Your task to perform on an android device: Show me recent news Image 0: 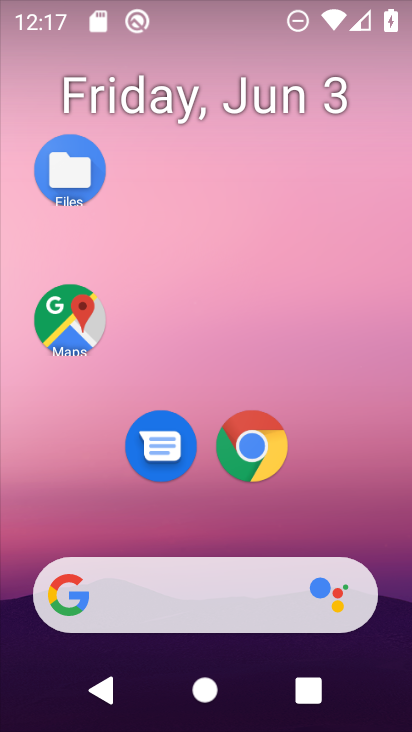
Step 0: drag from (232, 671) to (204, 207)
Your task to perform on an android device: Show me recent news Image 1: 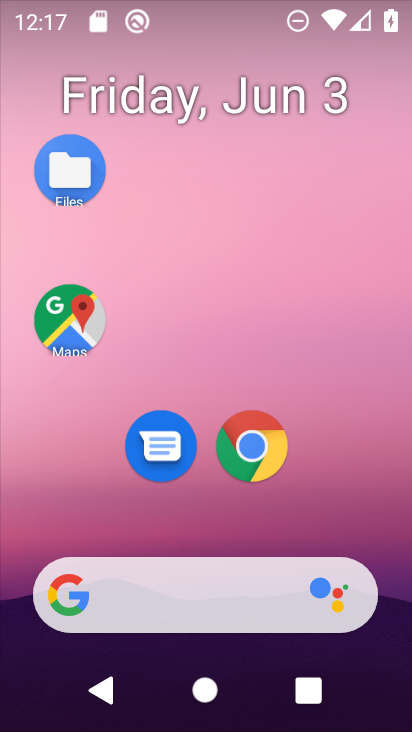
Step 1: drag from (177, 510) to (82, 134)
Your task to perform on an android device: Show me recent news Image 2: 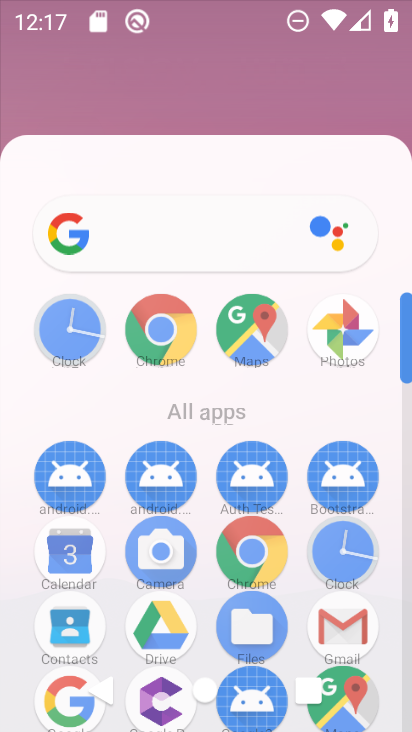
Step 2: drag from (194, 522) to (171, 229)
Your task to perform on an android device: Show me recent news Image 3: 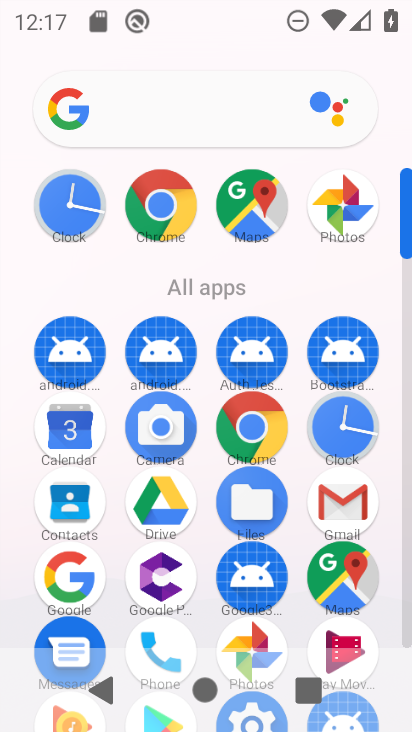
Step 3: drag from (277, 471) to (193, 219)
Your task to perform on an android device: Show me recent news Image 4: 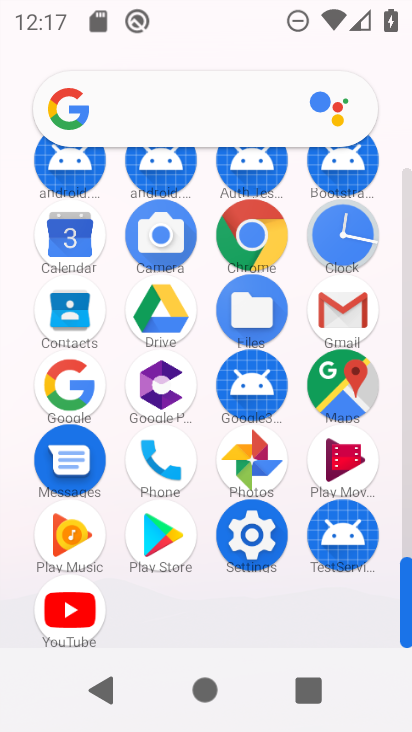
Step 4: click (254, 455)
Your task to perform on an android device: Show me recent news Image 5: 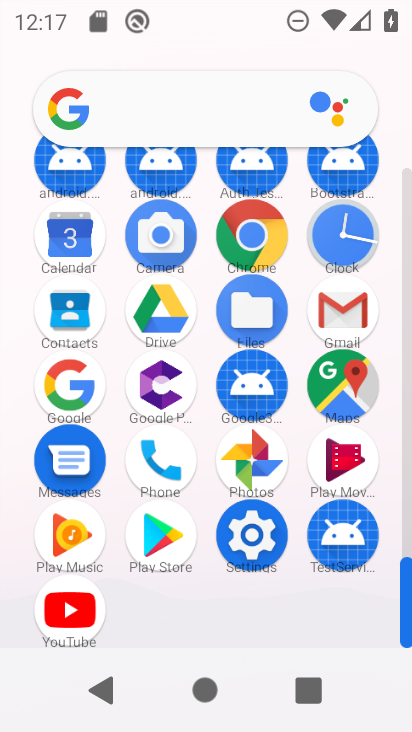
Step 5: click (252, 460)
Your task to perform on an android device: Show me recent news Image 6: 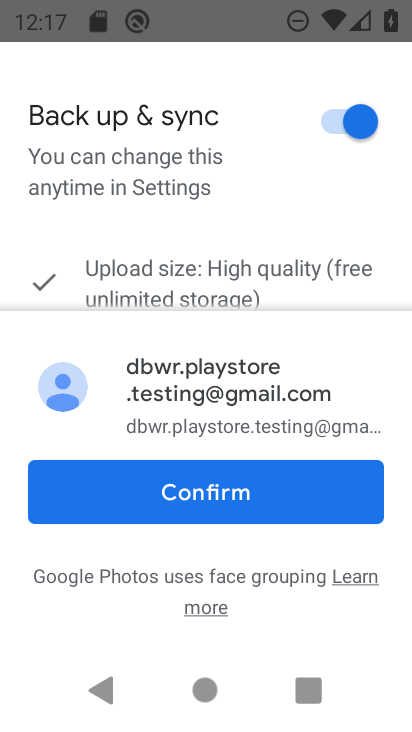
Step 6: press back button
Your task to perform on an android device: Show me recent news Image 7: 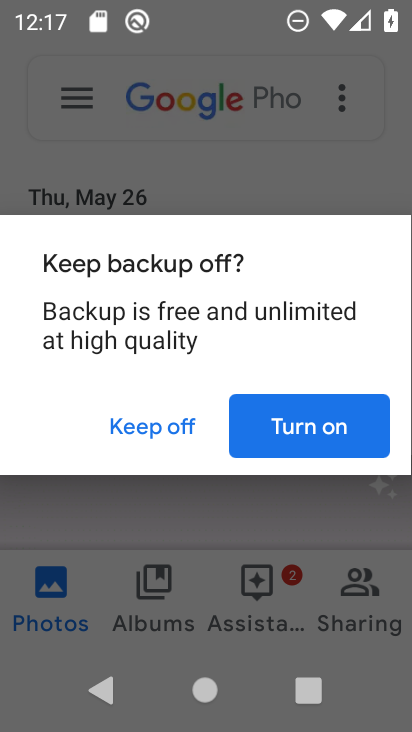
Step 7: click (158, 430)
Your task to perform on an android device: Show me recent news Image 8: 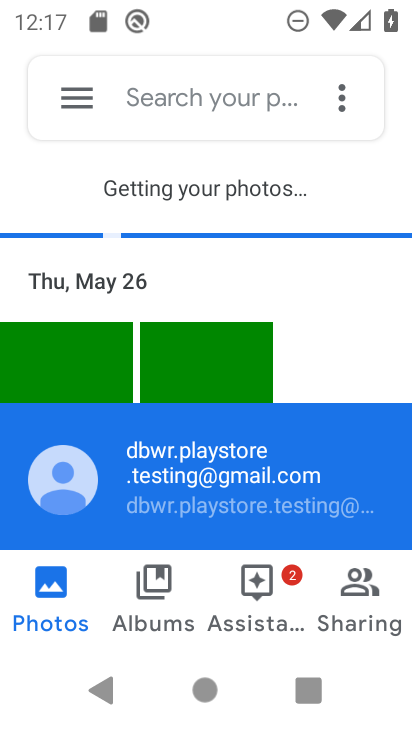
Step 8: press home button
Your task to perform on an android device: Show me recent news Image 9: 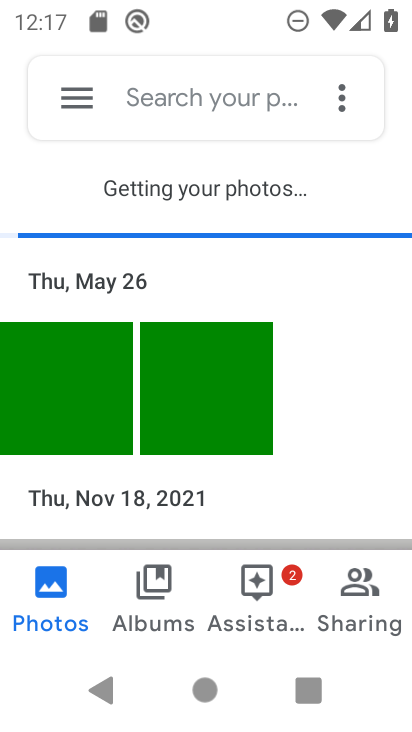
Step 9: press back button
Your task to perform on an android device: Show me recent news Image 10: 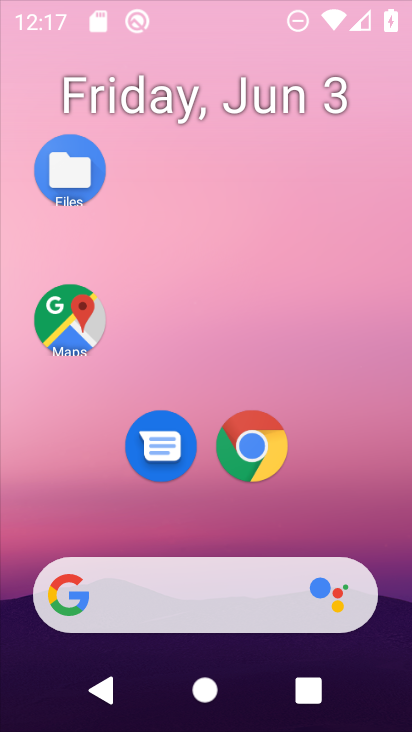
Step 10: press back button
Your task to perform on an android device: Show me recent news Image 11: 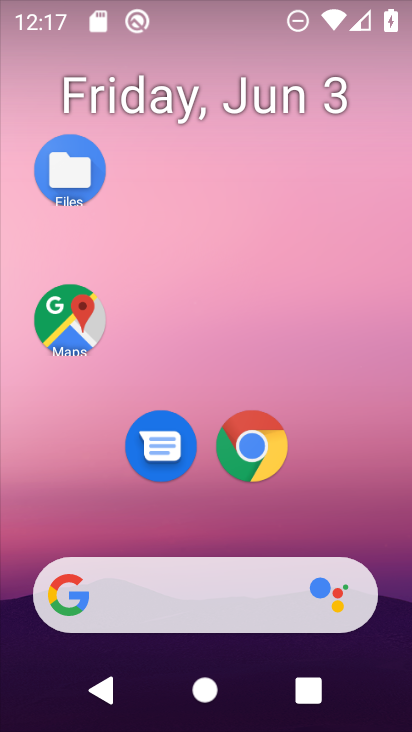
Step 11: drag from (39, 333) to (368, 471)
Your task to perform on an android device: Show me recent news Image 12: 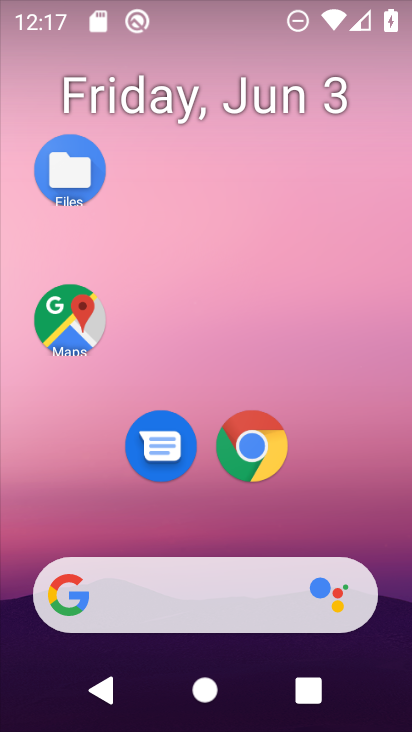
Step 12: drag from (15, 257) to (378, 466)
Your task to perform on an android device: Show me recent news Image 13: 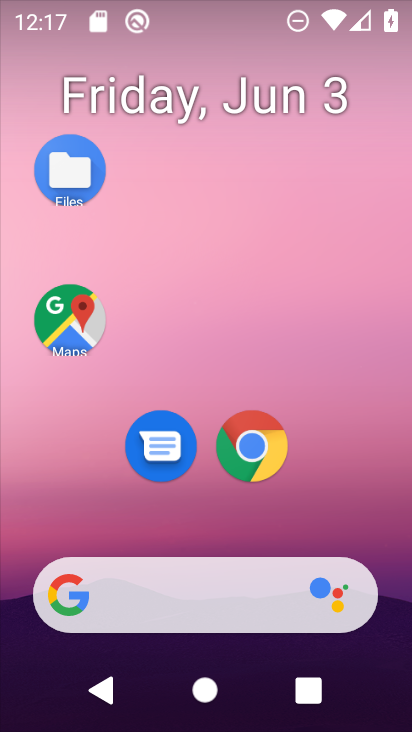
Step 13: drag from (23, 273) to (332, 415)
Your task to perform on an android device: Show me recent news Image 14: 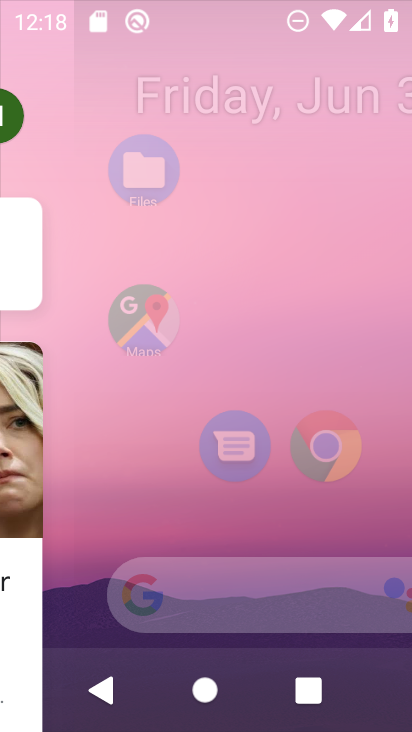
Step 14: drag from (22, 212) to (178, 337)
Your task to perform on an android device: Show me recent news Image 15: 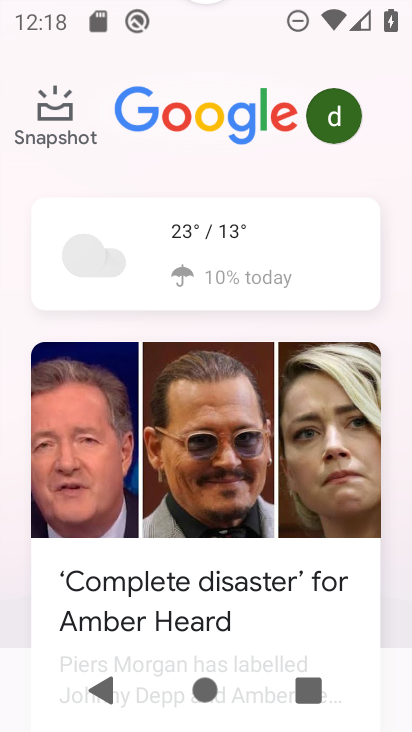
Step 15: click (318, 401)
Your task to perform on an android device: Show me recent news Image 16: 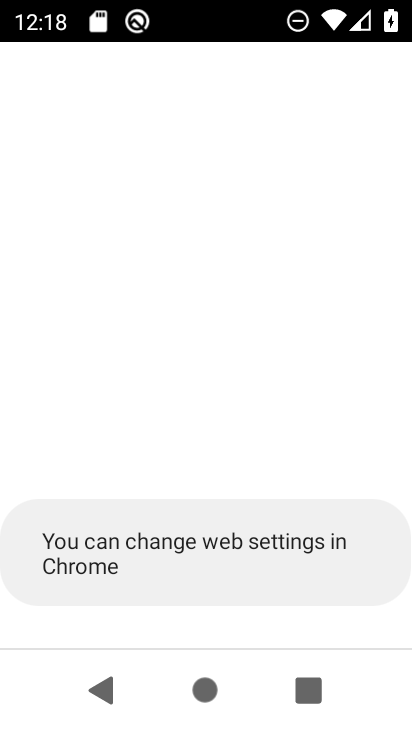
Step 16: drag from (161, 386) to (168, 150)
Your task to perform on an android device: Show me recent news Image 17: 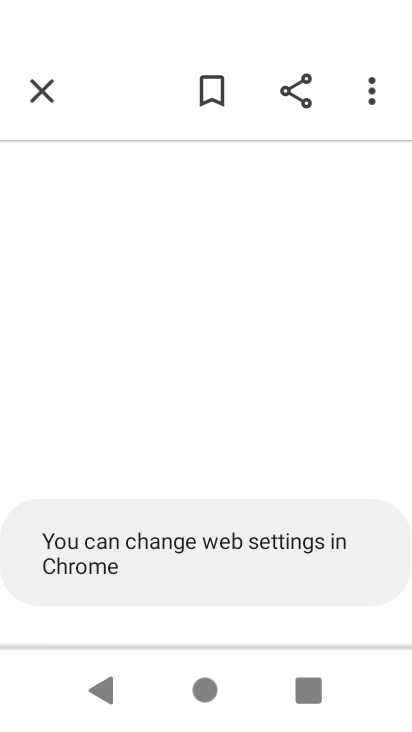
Step 17: drag from (192, 477) to (197, 235)
Your task to perform on an android device: Show me recent news Image 18: 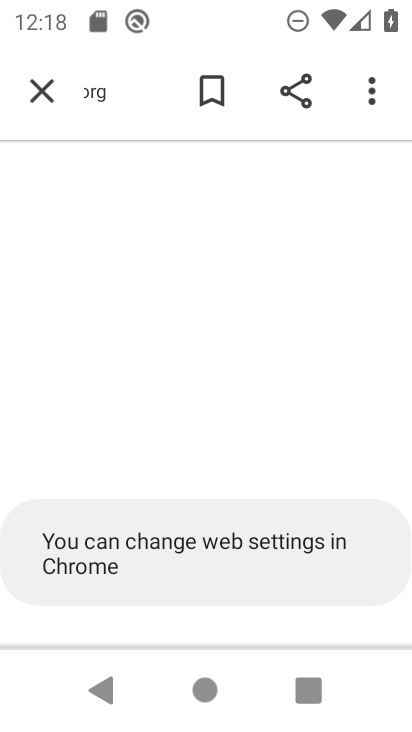
Step 18: click (168, 52)
Your task to perform on an android device: Show me recent news Image 19: 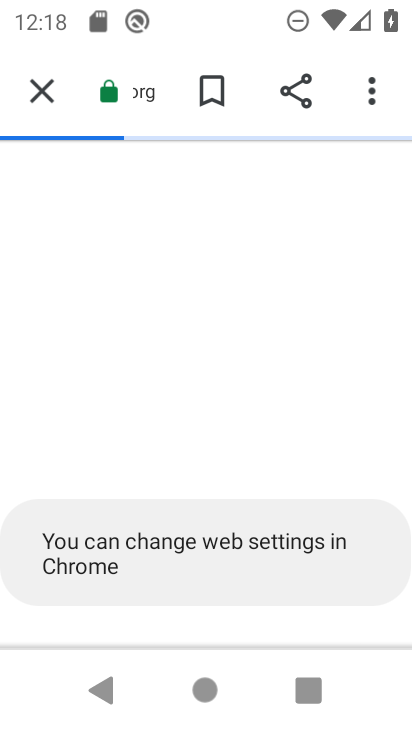
Step 19: task complete